Your task to perform on an android device: Go to Wikipedia Image 0: 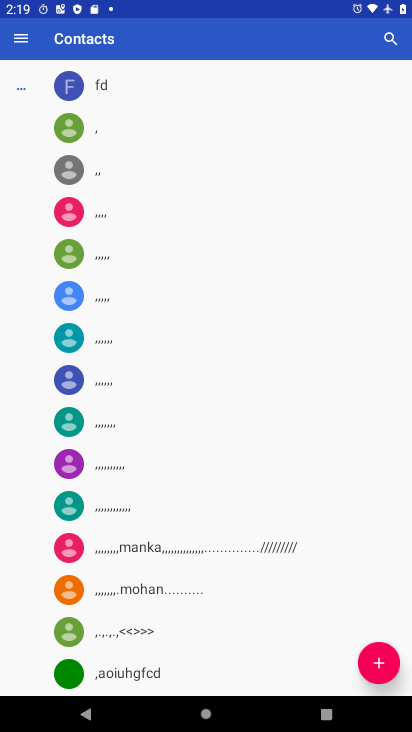
Step 0: press home button
Your task to perform on an android device: Go to Wikipedia Image 1: 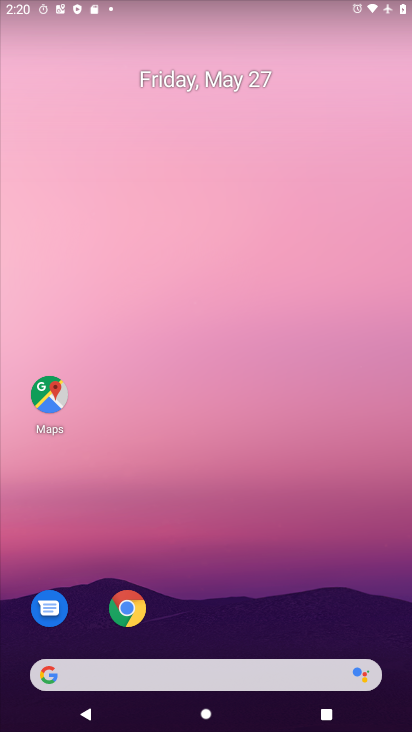
Step 1: click (125, 614)
Your task to perform on an android device: Go to Wikipedia Image 2: 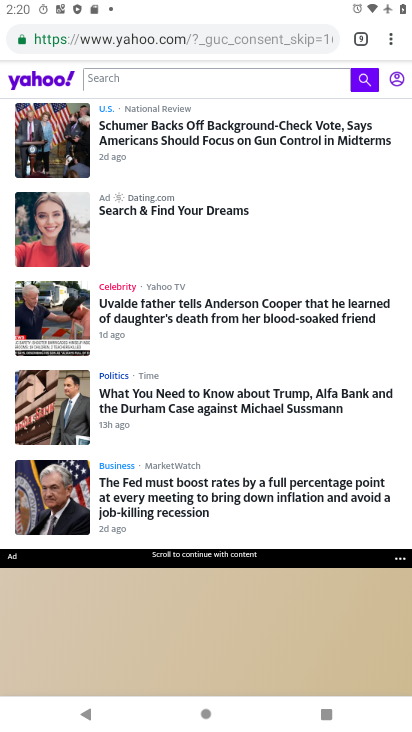
Step 2: drag from (391, 42) to (283, 82)
Your task to perform on an android device: Go to Wikipedia Image 3: 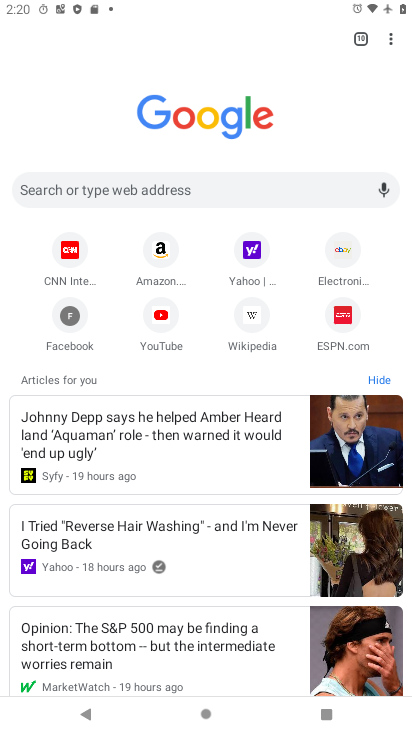
Step 3: click (249, 319)
Your task to perform on an android device: Go to Wikipedia Image 4: 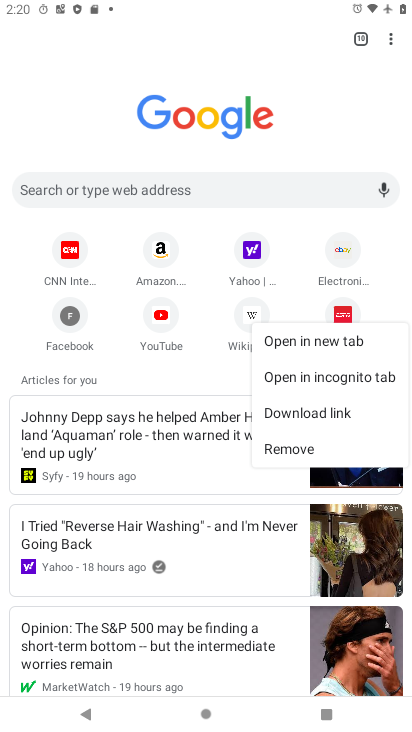
Step 4: click (245, 318)
Your task to perform on an android device: Go to Wikipedia Image 5: 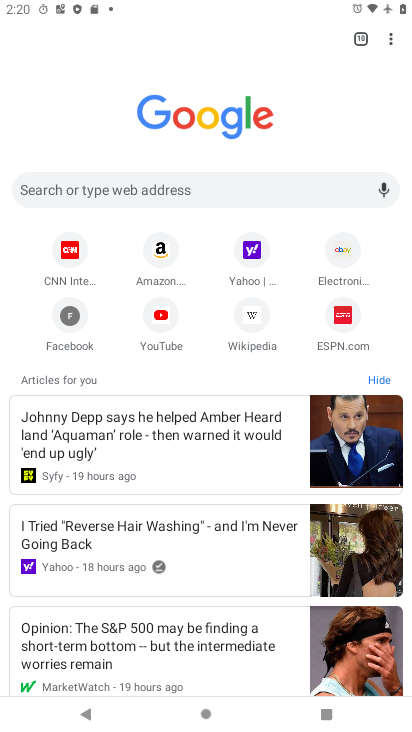
Step 5: click (251, 316)
Your task to perform on an android device: Go to Wikipedia Image 6: 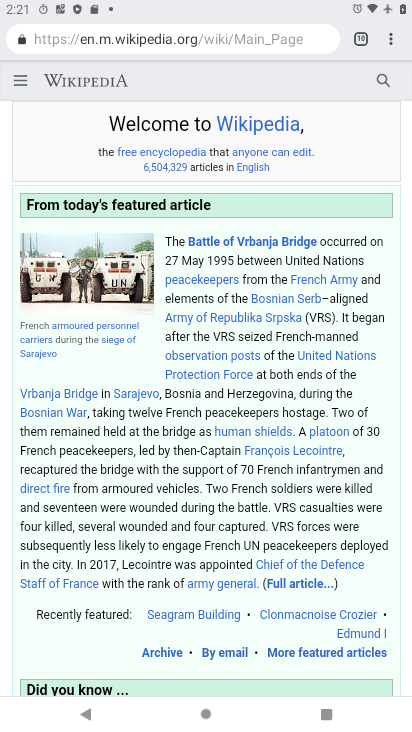
Step 6: task complete